Your task to perform on an android device: Show me the alarms in the clock app Image 0: 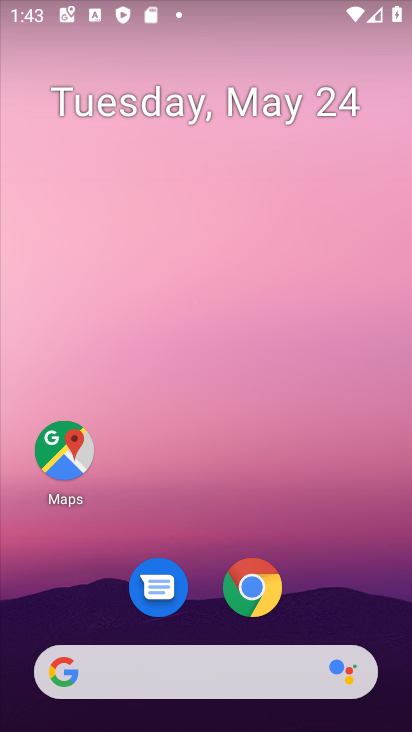
Step 0: drag from (244, 727) to (210, 296)
Your task to perform on an android device: Show me the alarms in the clock app Image 1: 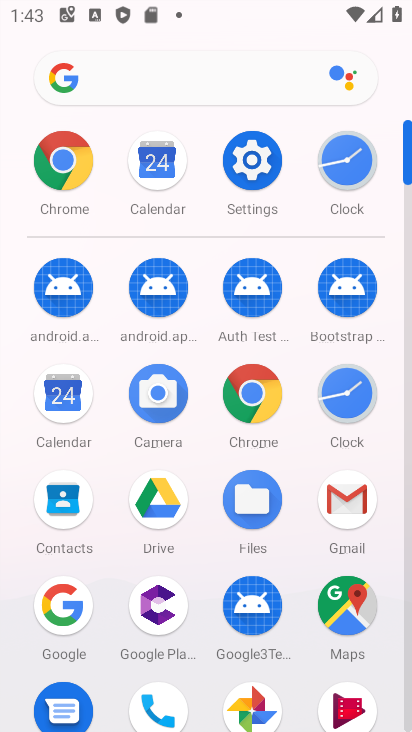
Step 1: click (354, 398)
Your task to perform on an android device: Show me the alarms in the clock app Image 2: 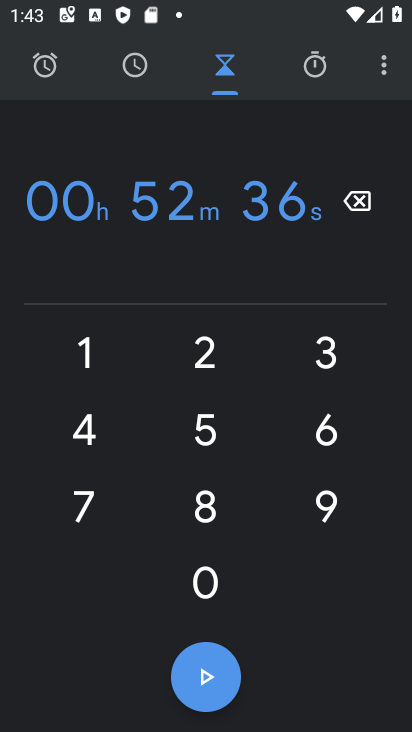
Step 2: click (56, 85)
Your task to perform on an android device: Show me the alarms in the clock app Image 3: 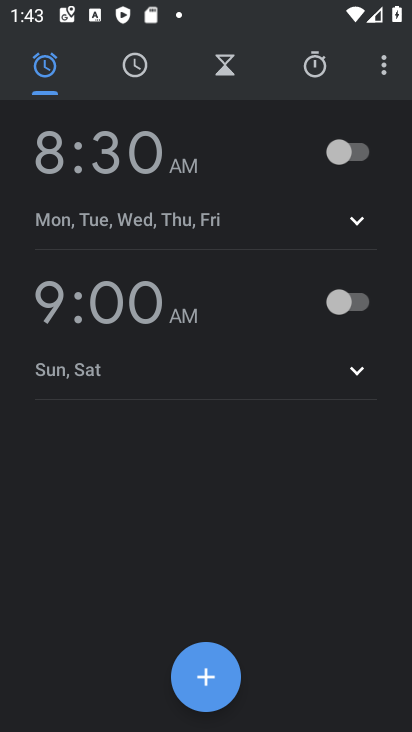
Step 3: task complete